Your task to perform on an android device: change notifications settings Image 0: 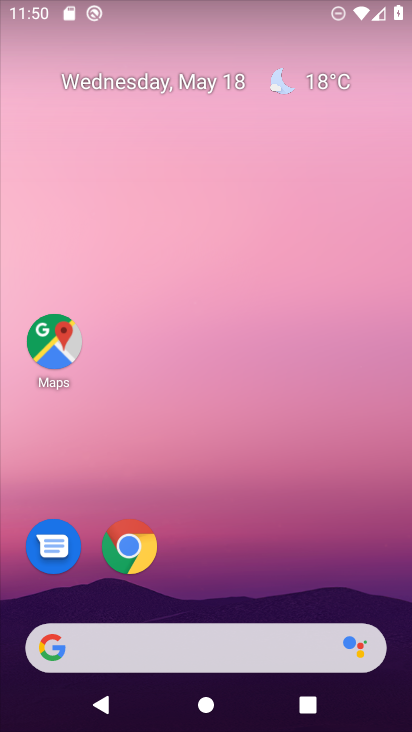
Step 0: drag from (222, 725) to (226, 128)
Your task to perform on an android device: change notifications settings Image 1: 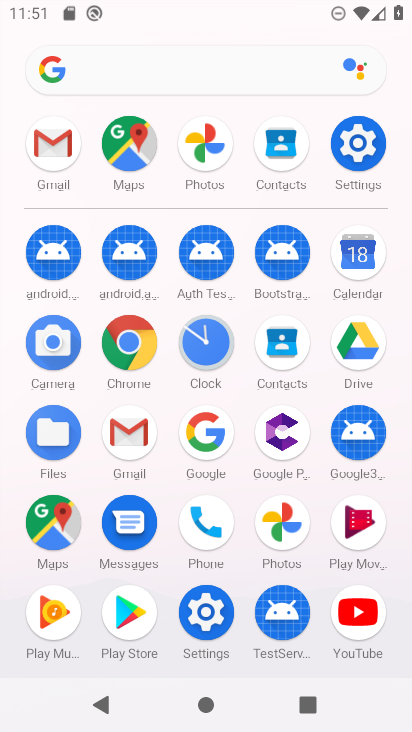
Step 1: click (346, 143)
Your task to perform on an android device: change notifications settings Image 2: 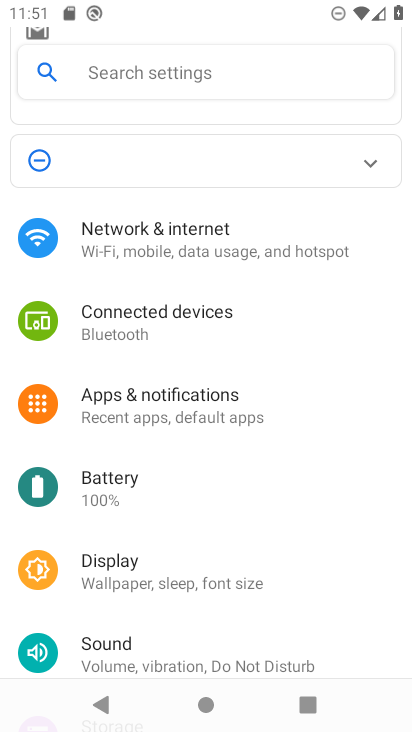
Step 2: click (129, 404)
Your task to perform on an android device: change notifications settings Image 3: 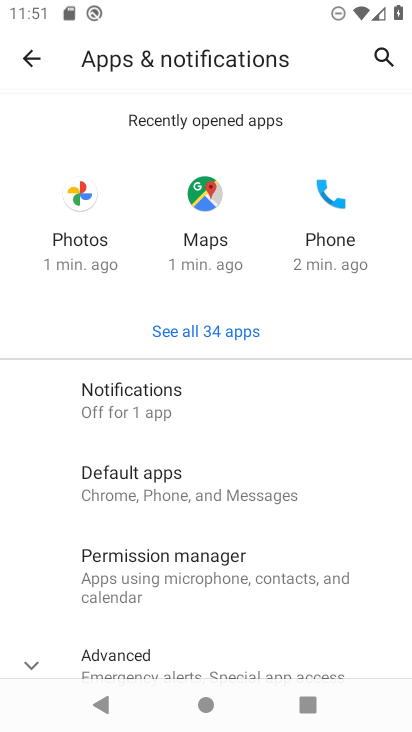
Step 3: click (129, 405)
Your task to perform on an android device: change notifications settings Image 4: 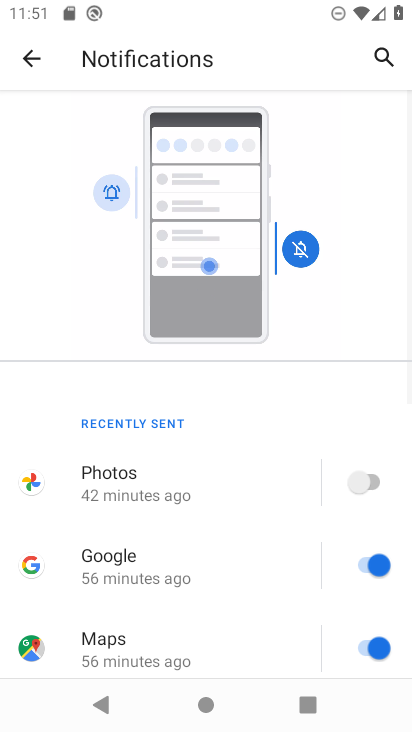
Step 4: drag from (184, 658) to (192, 278)
Your task to perform on an android device: change notifications settings Image 5: 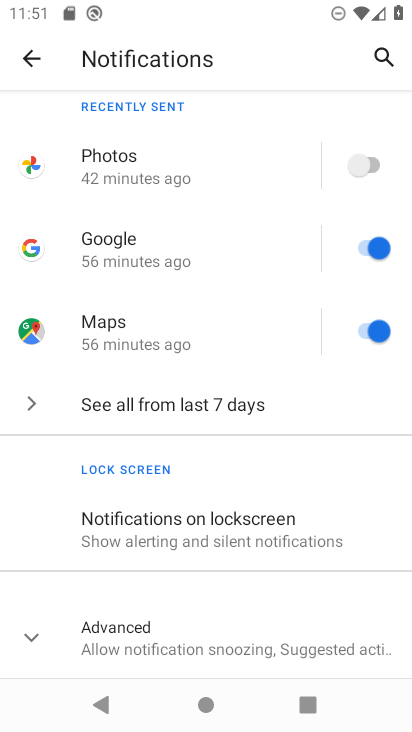
Step 5: drag from (217, 619) to (218, 337)
Your task to perform on an android device: change notifications settings Image 6: 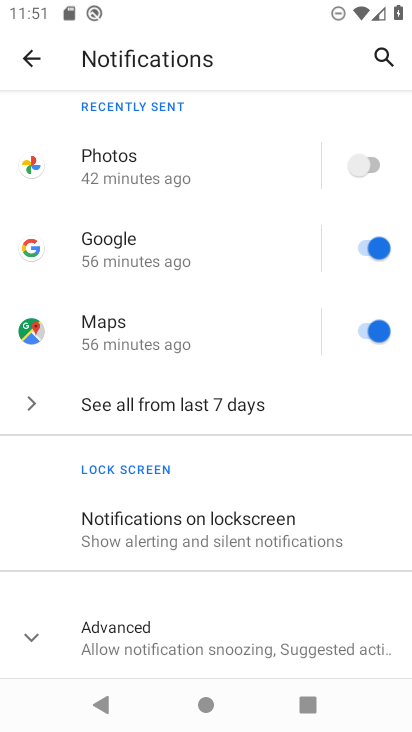
Step 6: click (165, 637)
Your task to perform on an android device: change notifications settings Image 7: 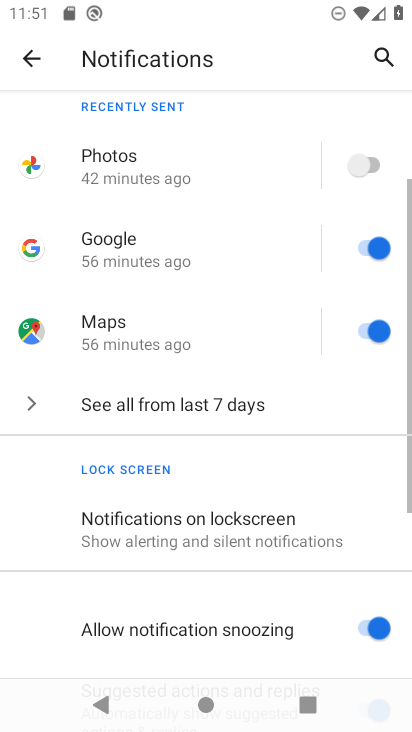
Step 7: drag from (232, 633) to (240, 333)
Your task to perform on an android device: change notifications settings Image 8: 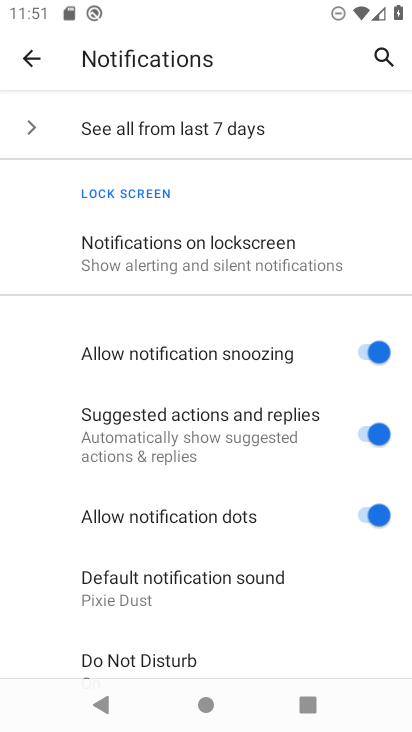
Step 8: click (361, 433)
Your task to perform on an android device: change notifications settings Image 9: 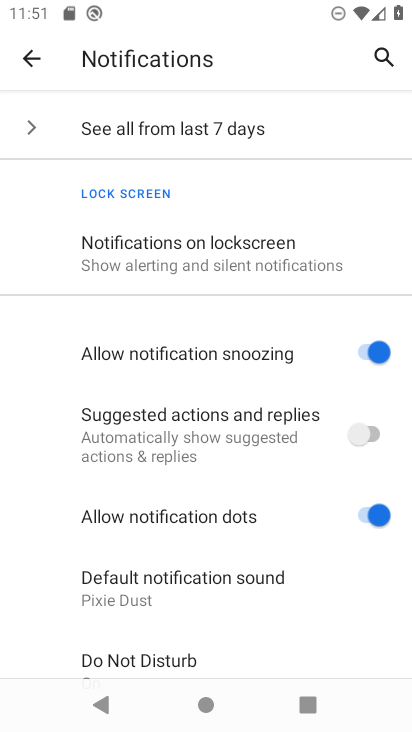
Step 9: click (363, 350)
Your task to perform on an android device: change notifications settings Image 10: 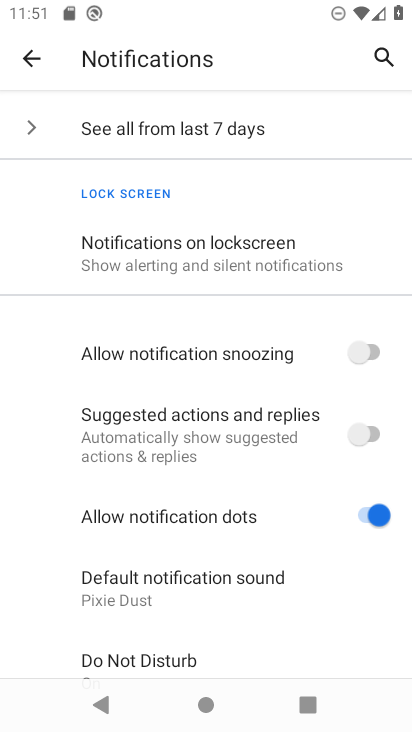
Step 10: task complete